Your task to perform on an android device: Open Google Maps Image 0: 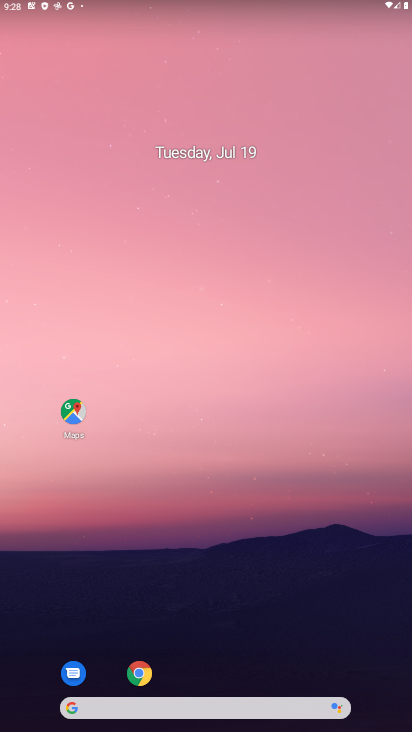
Step 0: click (229, 660)
Your task to perform on an android device: Open Google Maps Image 1: 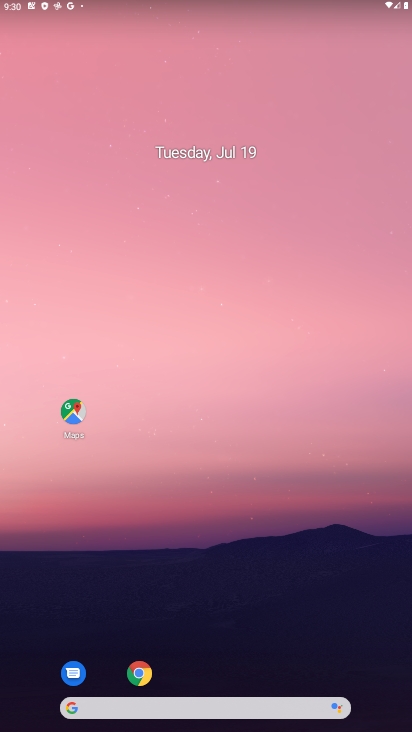
Step 1: click (67, 422)
Your task to perform on an android device: Open Google Maps Image 2: 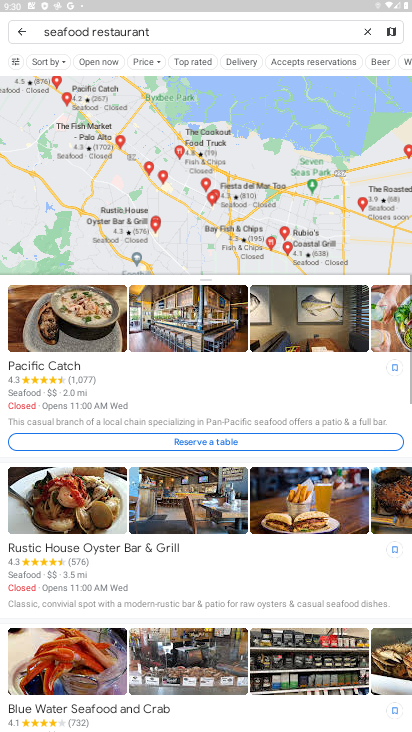
Step 2: click (30, 29)
Your task to perform on an android device: Open Google Maps Image 3: 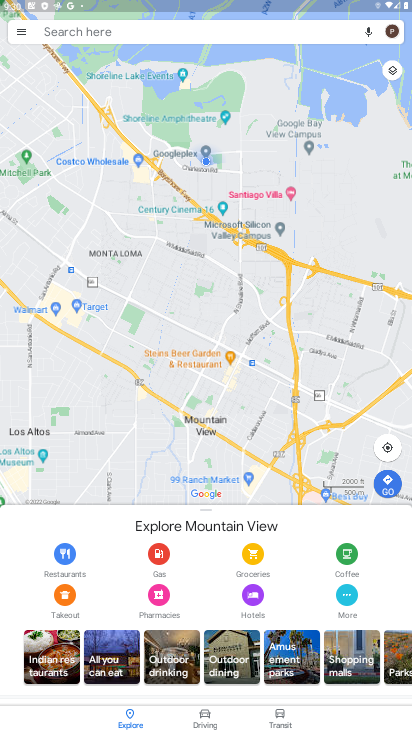
Step 3: task complete